Your task to perform on an android device: Open the calendar app, open the side menu, and click the "Day" option Image 0: 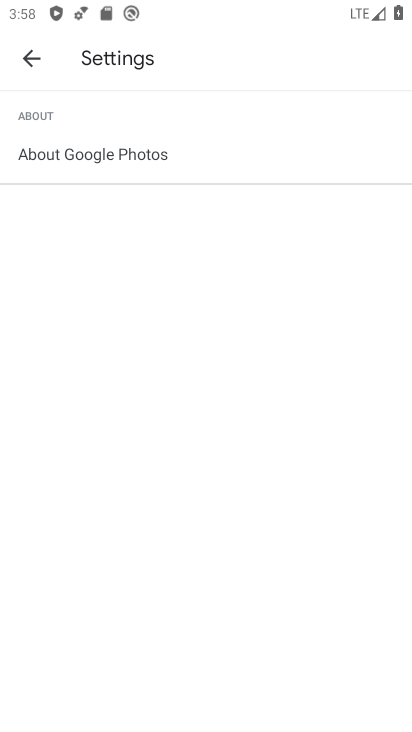
Step 0: press home button
Your task to perform on an android device: Open the calendar app, open the side menu, and click the "Day" option Image 1: 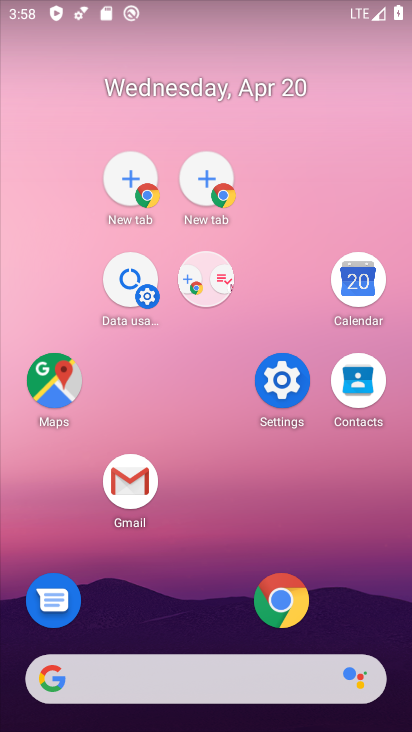
Step 1: click (358, 290)
Your task to perform on an android device: Open the calendar app, open the side menu, and click the "Day" option Image 2: 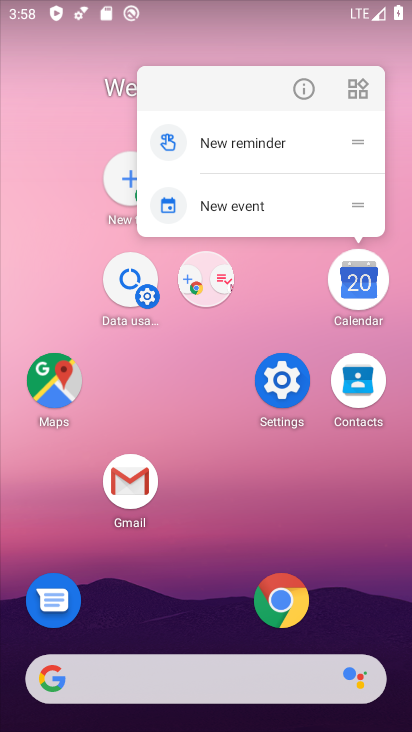
Step 2: click (358, 290)
Your task to perform on an android device: Open the calendar app, open the side menu, and click the "Day" option Image 3: 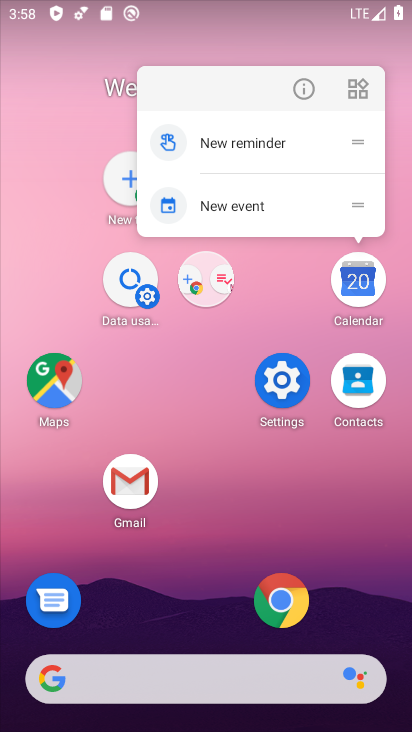
Step 3: click (227, 211)
Your task to perform on an android device: Open the calendar app, open the side menu, and click the "Day" option Image 4: 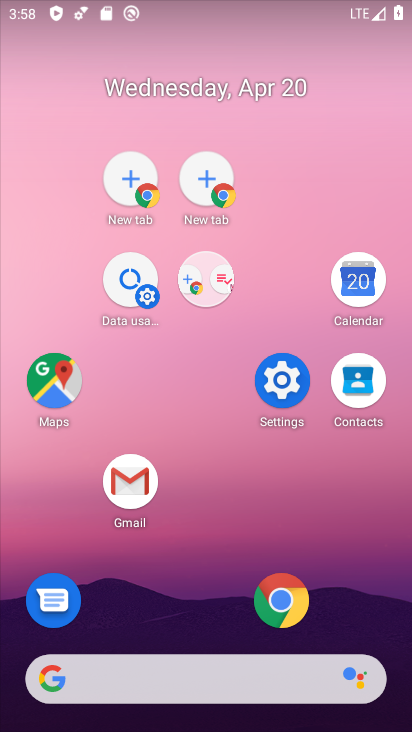
Step 4: drag from (383, 612) to (212, 193)
Your task to perform on an android device: Open the calendar app, open the side menu, and click the "Day" option Image 5: 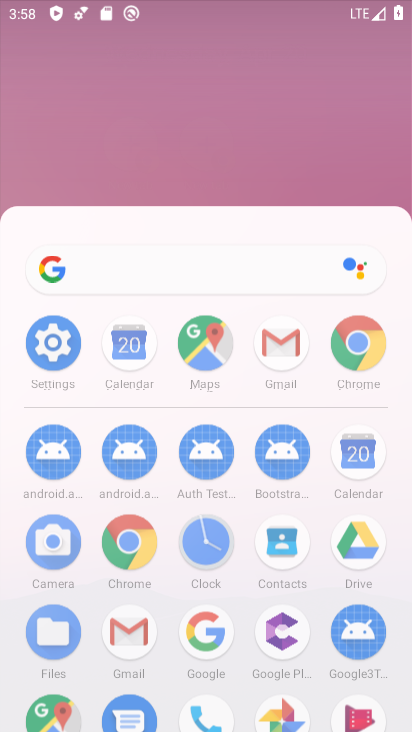
Step 5: drag from (206, 387) to (146, 248)
Your task to perform on an android device: Open the calendar app, open the side menu, and click the "Day" option Image 6: 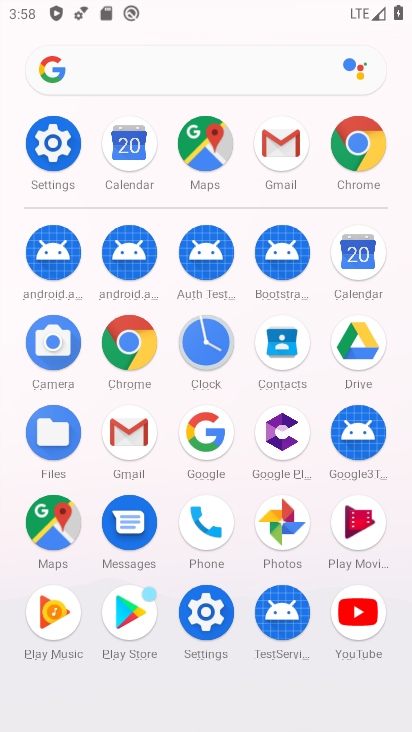
Step 6: click (45, 148)
Your task to perform on an android device: Open the calendar app, open the side menu, and click the "Day" option Image 7: 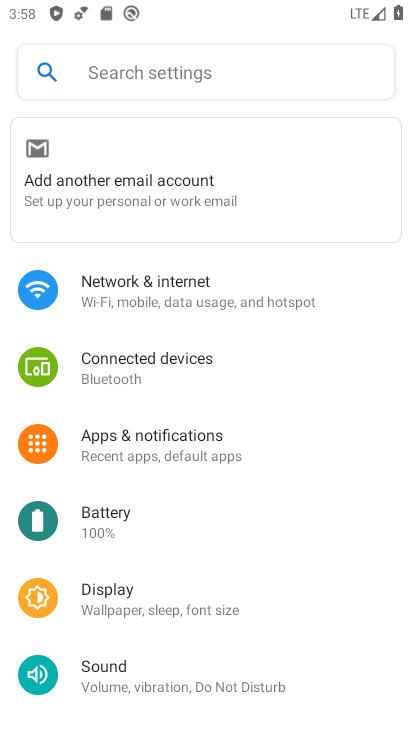
Step 7: press home button
Your task to perform on an android device: Open the calendar app, open the side menu, and click the "Day" option Image 8: 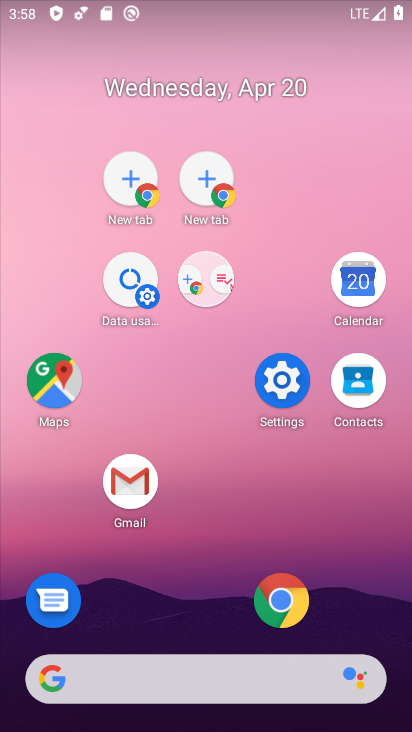
Step 8: click (370, 290)
Your task to perform on an android device: Open the calendar app, open the side menu, and click the "Day" option Image 9: 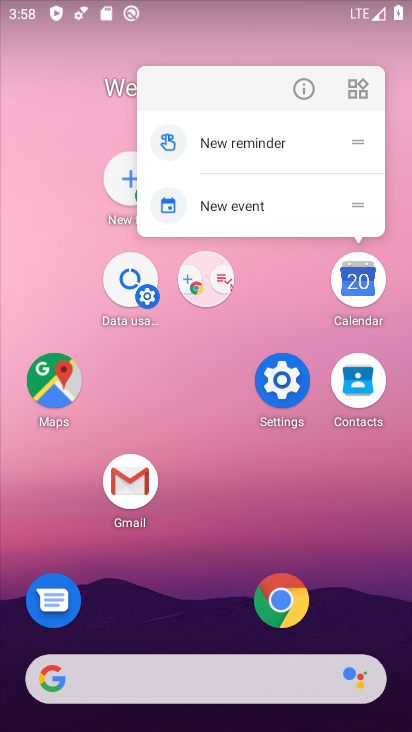
Step 9: click (366, 288)
Your task to perform on an android device: Open the calendar app, open the side menu, and click the "Day" option Image 10: 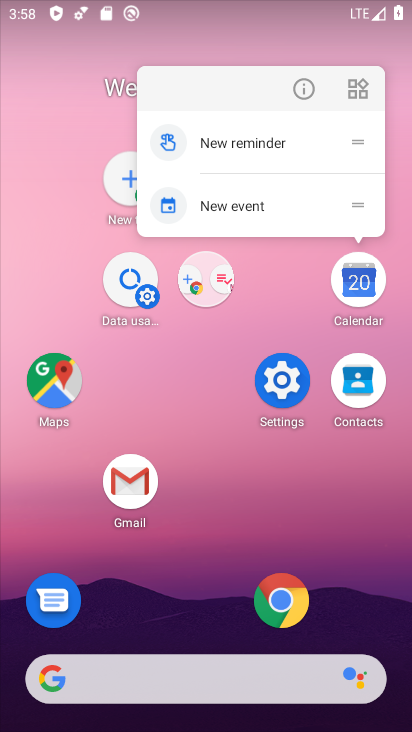
Step 10: click (366, 288)
Your task to perform on an android device: Open the calendar app, open the side menu, and click the "Day" option Image 11: 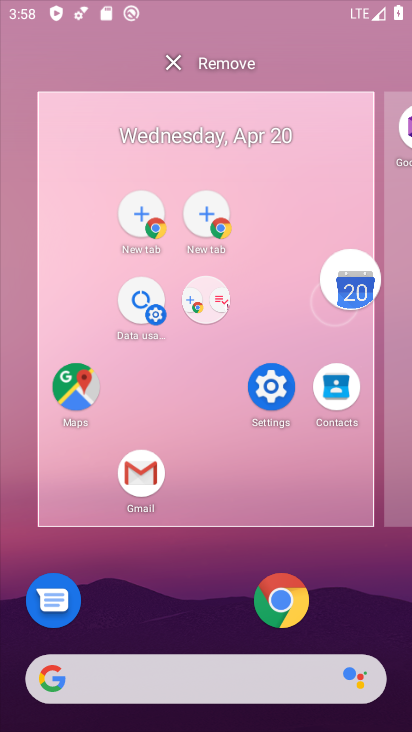
Step 11: click (358, 281)
Your task to perform on an android device: Open the calendar app, open the side menu, and click the "Day" option Image 12: 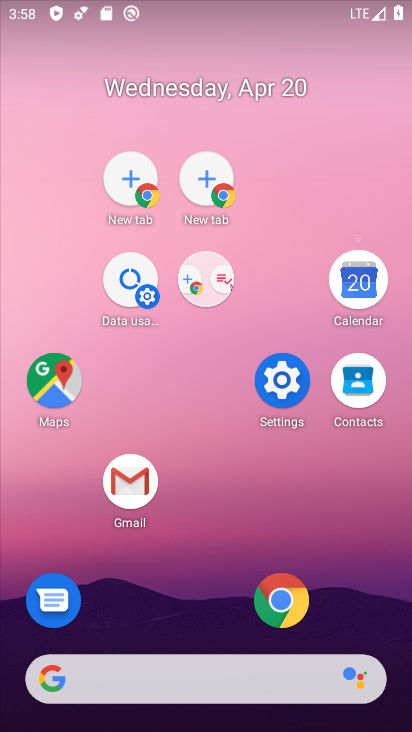
Step 12: click (353, 276)
Your task to perform on an android device: Open the calendar app, open the side menu, and click the "Day" option Image 13: 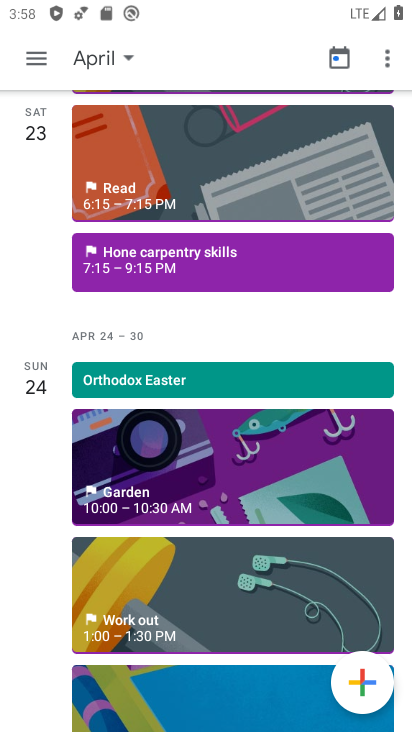
Step 13: click (53, 59)
Your task to perform on an android device: Open the calendar app, open the side menu, and click the "Day" option Image 14: 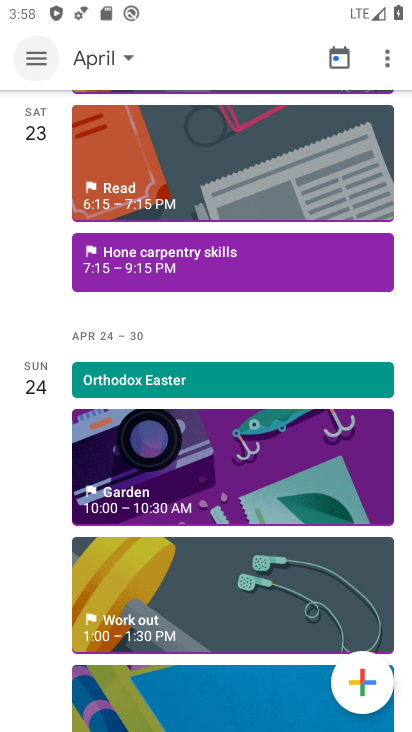
Step 14: click (39, 69)
Your task to perform on an android device: Open the calendar app, open the side menu, and click the "Day" option Image 15: 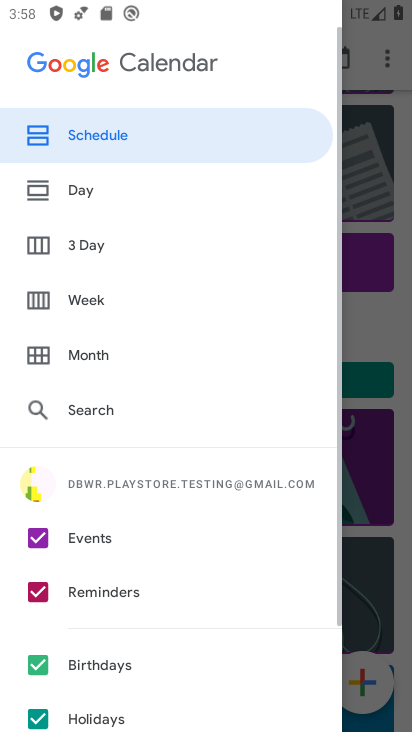
Step 15: click (74, 178)
Your task to perform on an android device: Open the calendar app, open the side menu, and click the "Day" option Image 16: 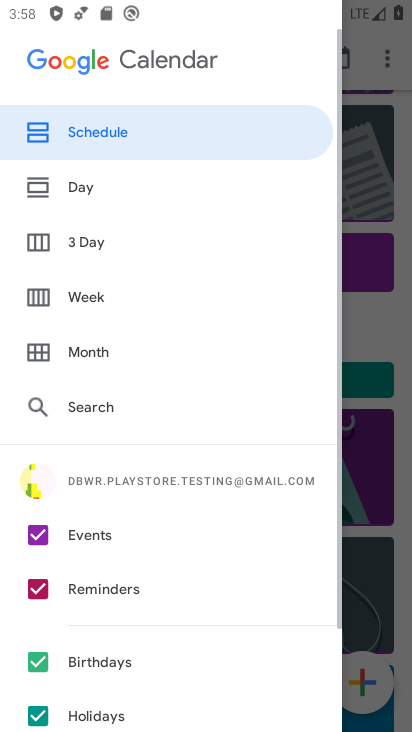
Step 16: click (81, 186)
Your task to perform on an android device: Open the calendar app, open the side menu, and click the "Day" option Image 17: 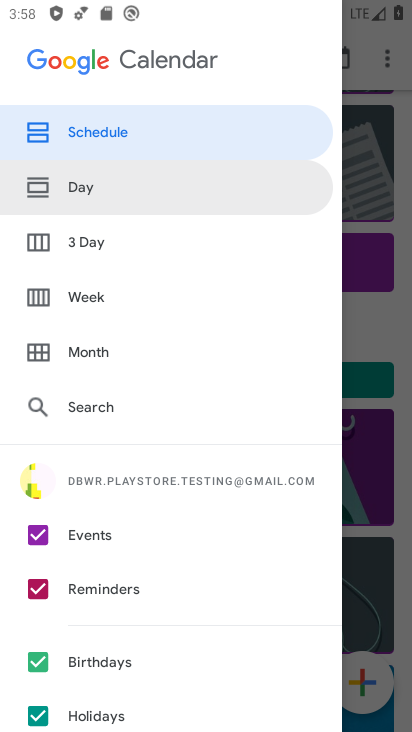
Step 17: click (84, 183)
Your task to perform on an android device: Open the calendar app, open the side menu, and click the "Day" option Image 18: 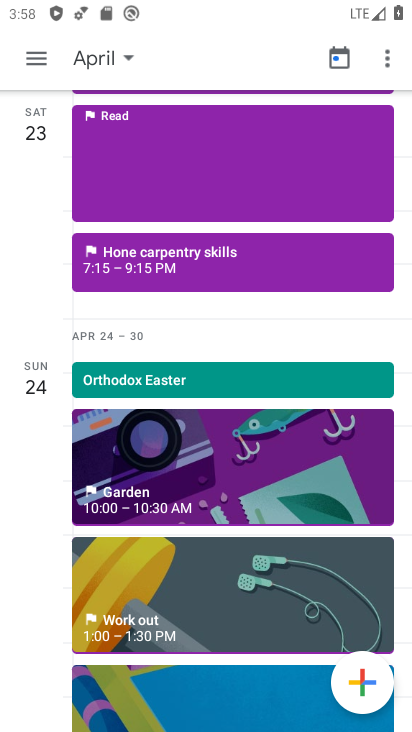
Step 18: click (85, 182)
Your task to perform on an android device: Open the calendar app, open the side menu, and click the "Day" option Image 19: 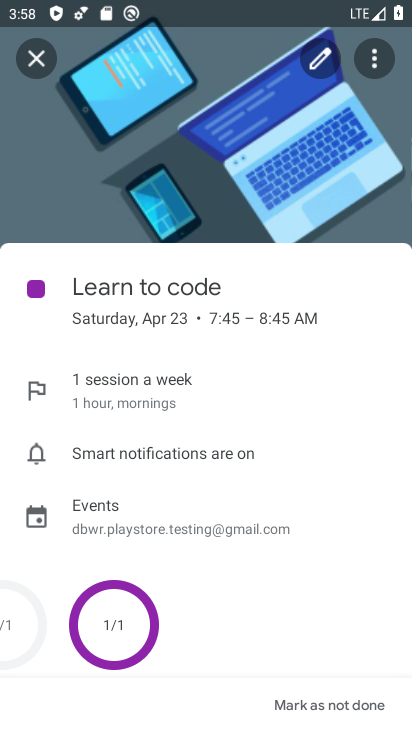
Step 19: task complete